Your task to perform on an android device: empty trash in google photos Image 0: 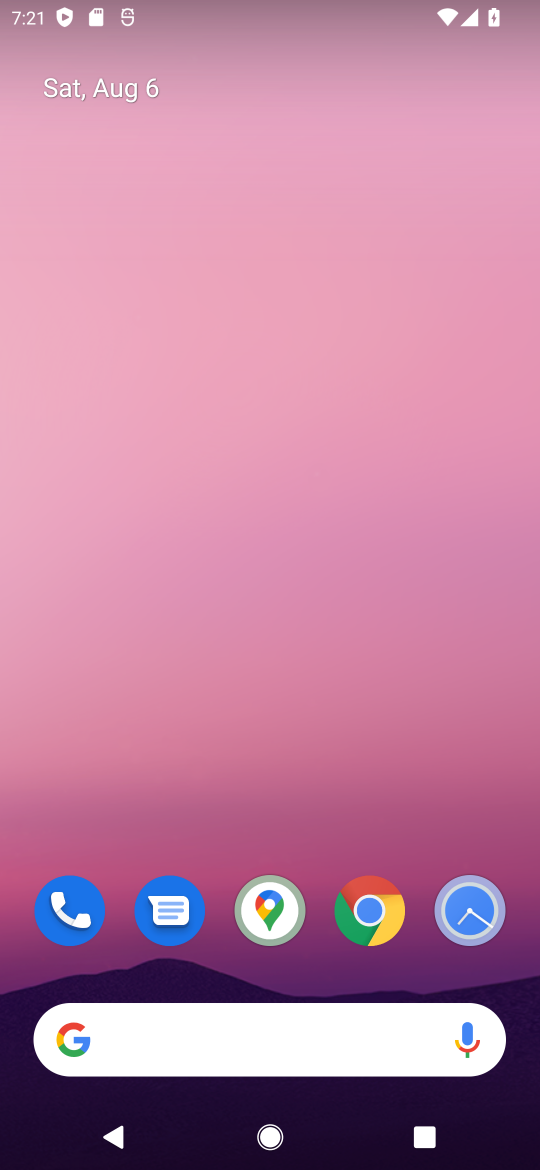
Step 0: drag from (513, 1072) to (420, 311)
Your task to perform on an android device: empty trash in google photos Image 1: 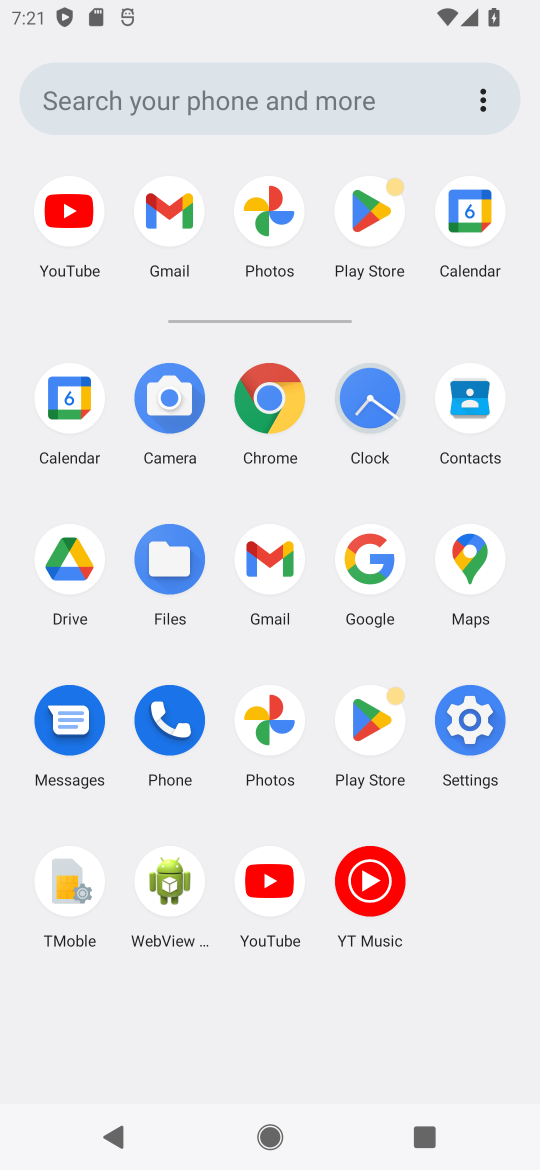
Step 1: click (260, 722)
Your task to perform on an android device: empty trash in google photos Image 2: 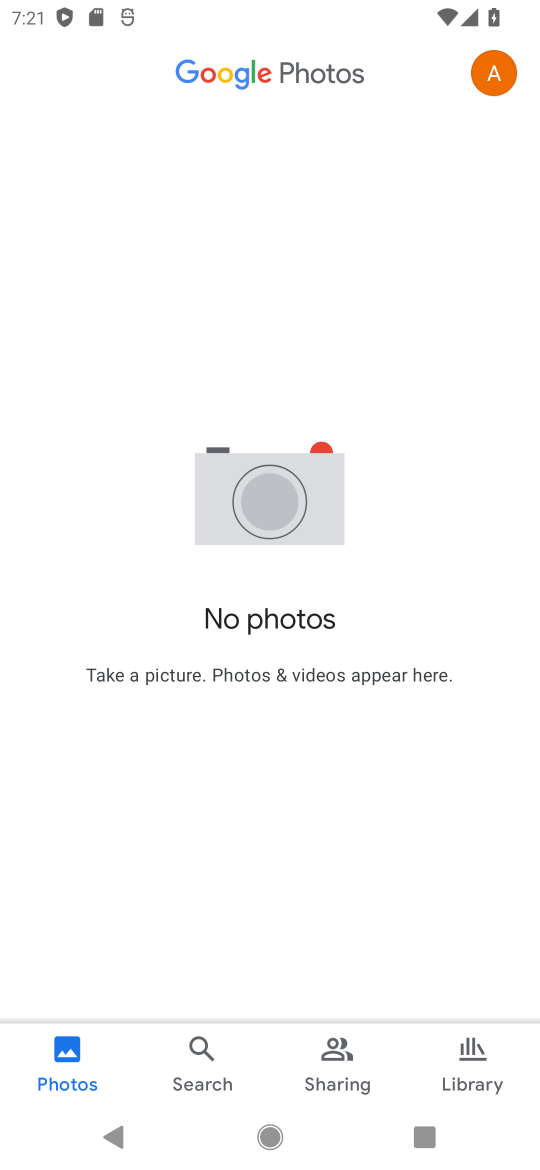
Step 2: task complete